Your task to perform on an android device: toggle sleep mode Image 0: 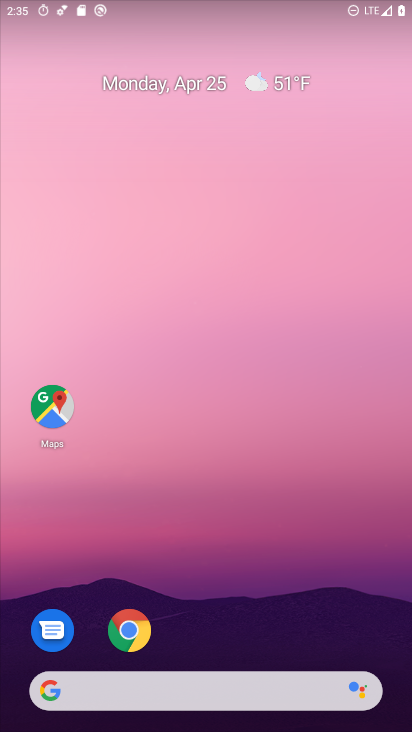
Step 0: drag from (198, 568) to (255, 131)
Your task to perform on an android device: toggle sleep mode Image 1: 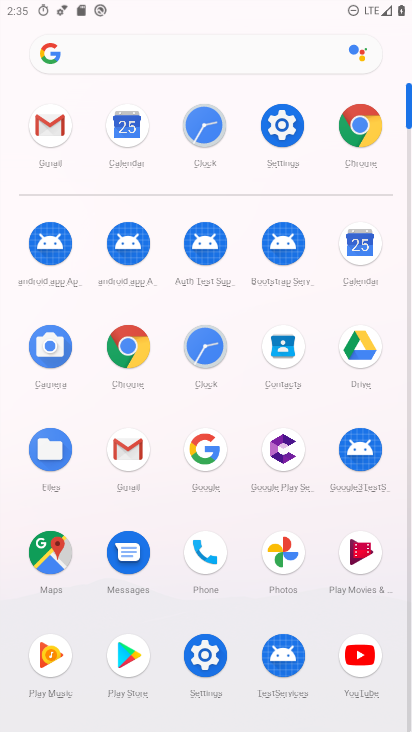
Step 1: click (184, 656)
Your task to perform on an android device: toggle sleep mode Image 2: 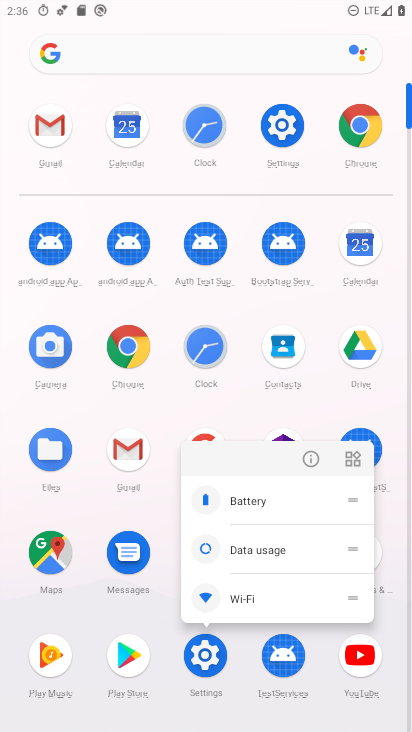
Step 2: click (310, 452)
Your task to perform on an android device: toggle sleep mode Image 3: 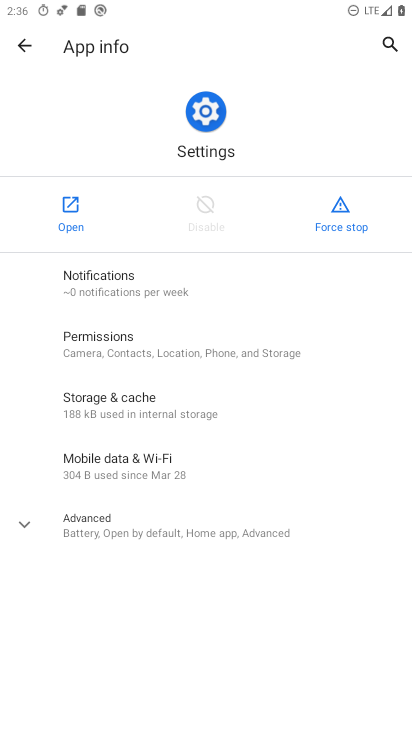
Step 3: click (67, 208)
Your task to perform on an android device: toggle sleep mode Image 4: 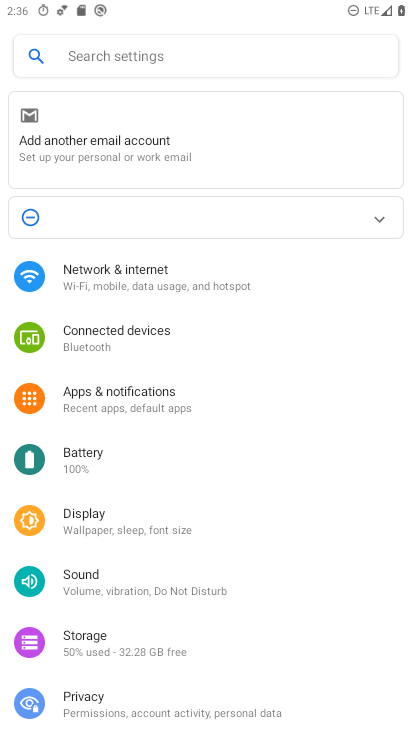
Step 4: click (110, 515)
Your task to perform on an android device: toggle sleep mode Image 5: 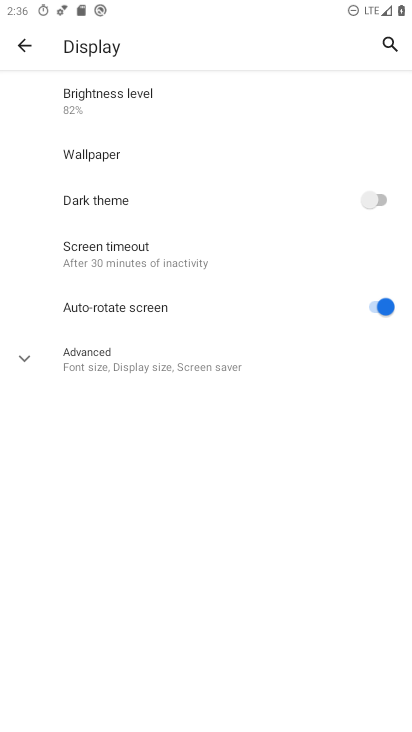
Step 5: click (239, 249)
Your task to perform on an android device: toggle sleep mode Image 6: 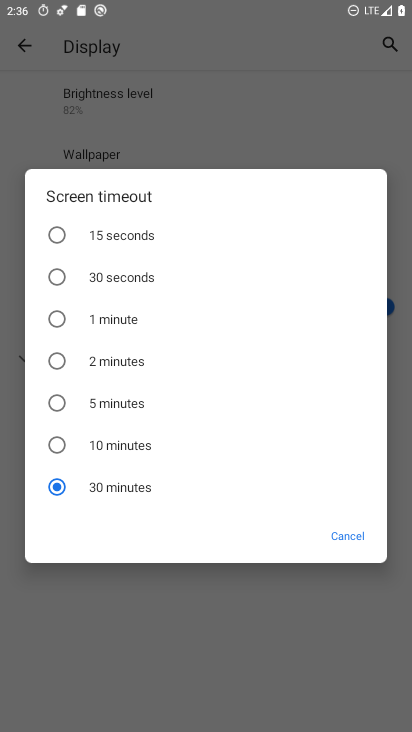
Step 6: task complete